Your task to perform on an android device: turn on location history Image 0: 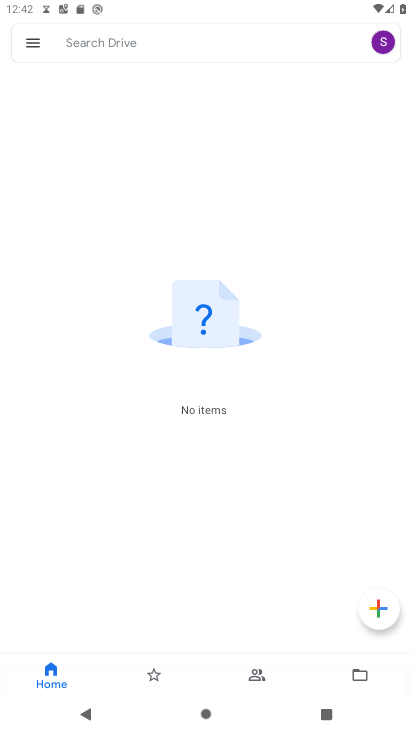
Step 0: press home button
Your task to perform on an android device: turn on location history Image 1: 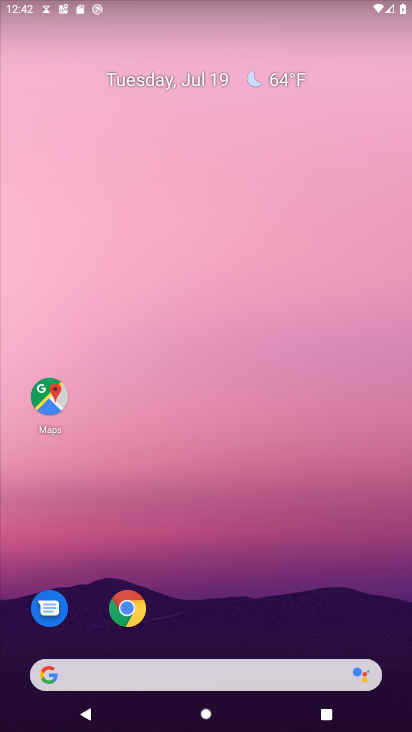
Step 1: drag from (247, 634) to (218, 139)
Your task to perform on an android device: turn on location history Image 2: 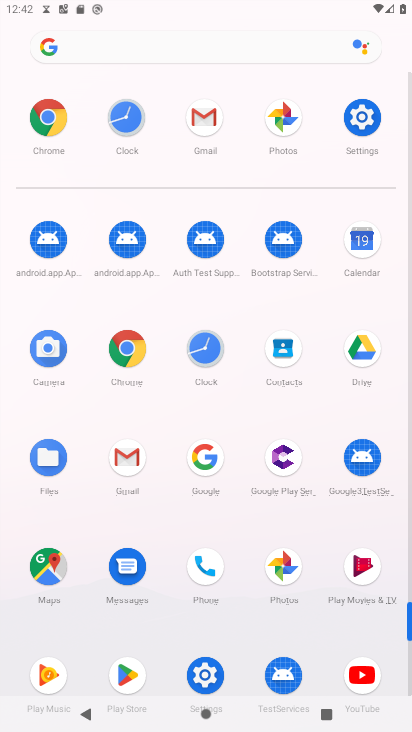
Step 2: click (215, 672)
Your task to perform on an android device: turn on location history Image 3: 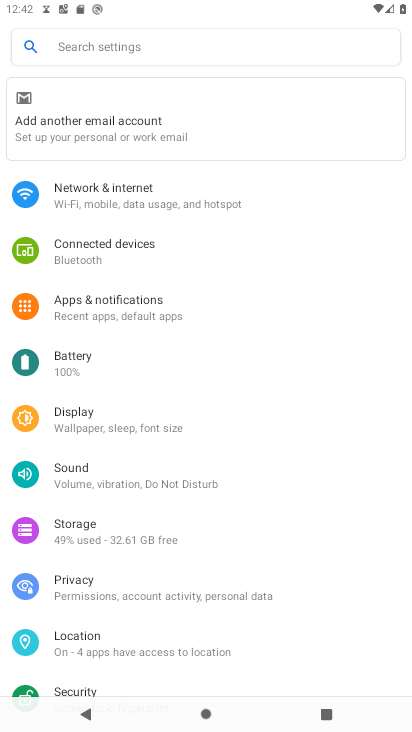
Step 3: click (101, 640)
Your task to perform on an android device: turn on location history Image 4: 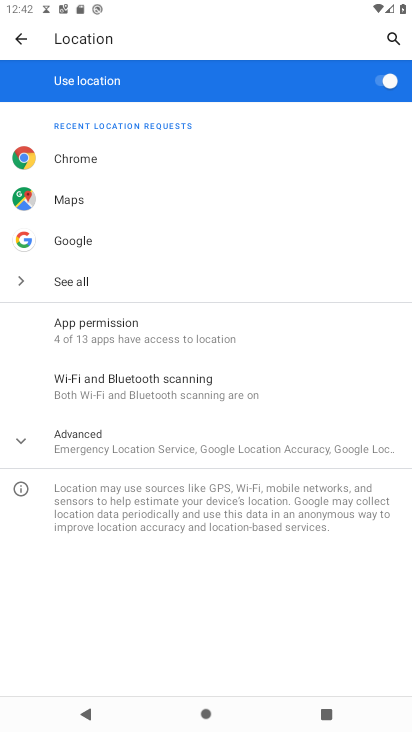
Step 4: task complete